Your task to perform on an android device: delete a single message in the gmail app Image 0: 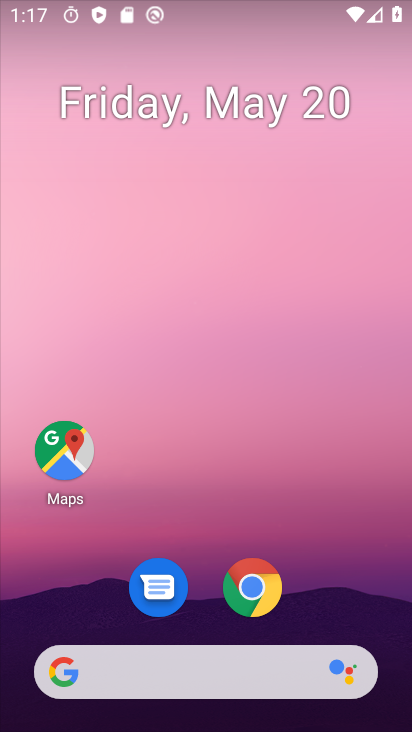
Step 0: drag from (316, 599) to (315, 132)
Your task to perform on an android device: delete a single message in the gmail app Image 1: 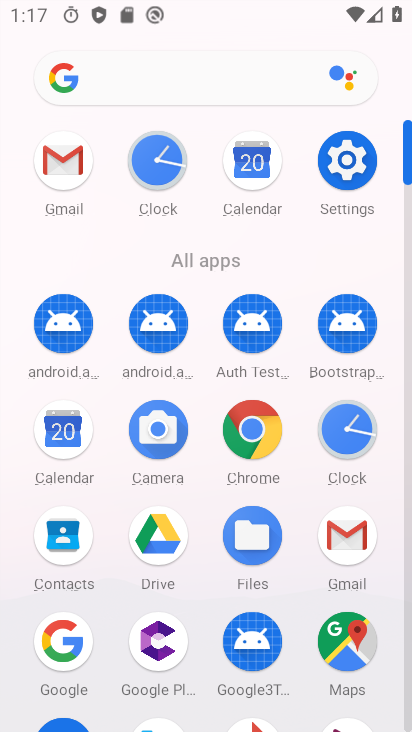
Step 1: click (73, 163)
Your task to perform on an android device: delete a single message in the gmail app Image 2: 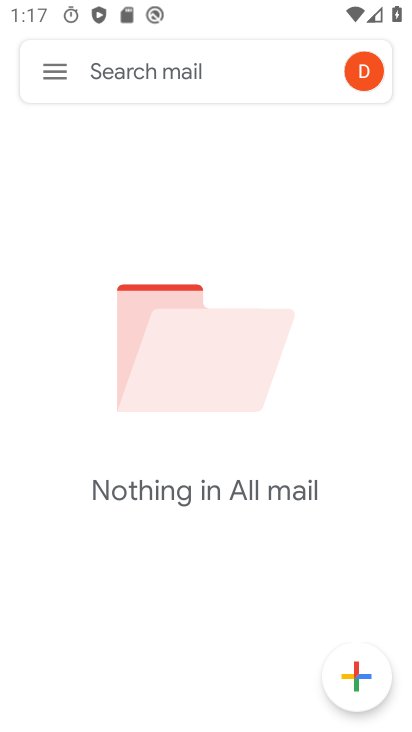
Step 2: task complete